Your task to perform on an android device: change notification settings in the gmail app Image 0: 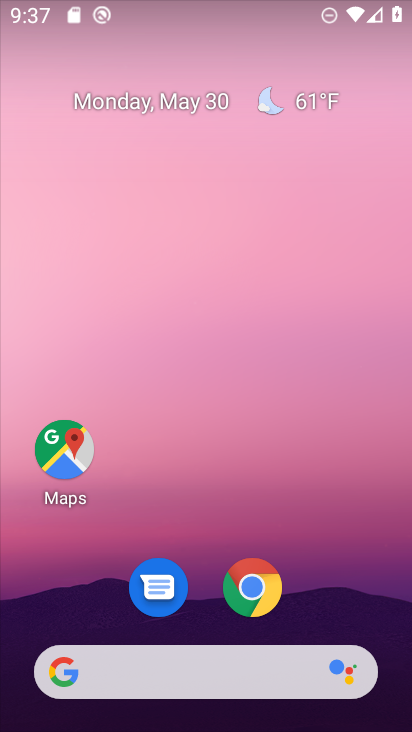
Step 0: drag from (219, 624) to (195, 14)
Your task to perform on an android device: change notification settings in the gmail app Image 1: 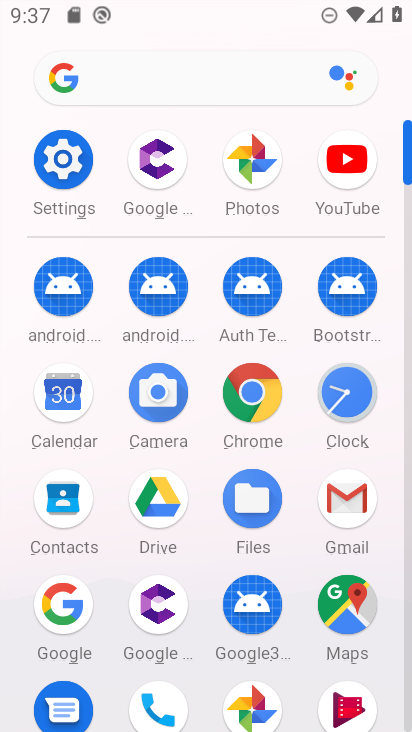
Step 1: click (367, 492)
Your task to perform on an android device: change notification settings in the gmail app Image 2: 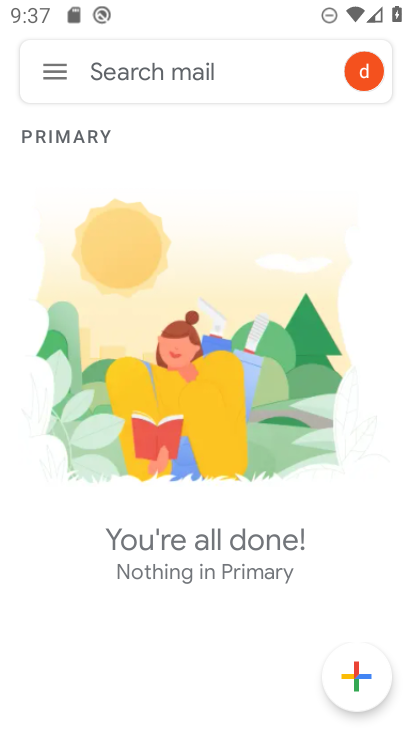
Step 2: click (40, 73)
Your task to perform on an android device: change notification settings in the gmail app Image 3: 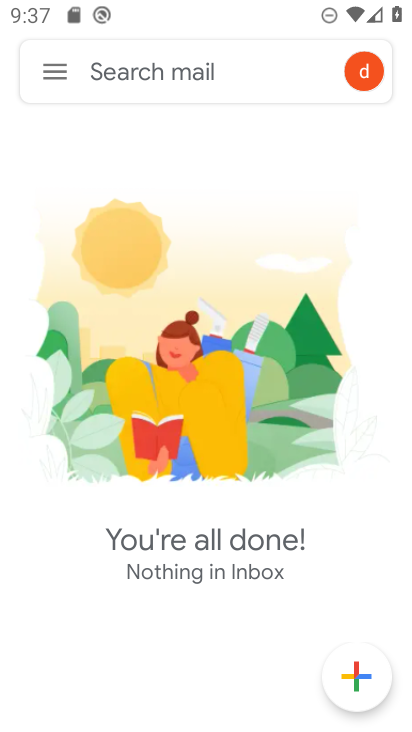
Step 3: drag from (51, 75) to (98, 390)
Your task to perform on an android device: change notification settings in the gmail app Image 4: 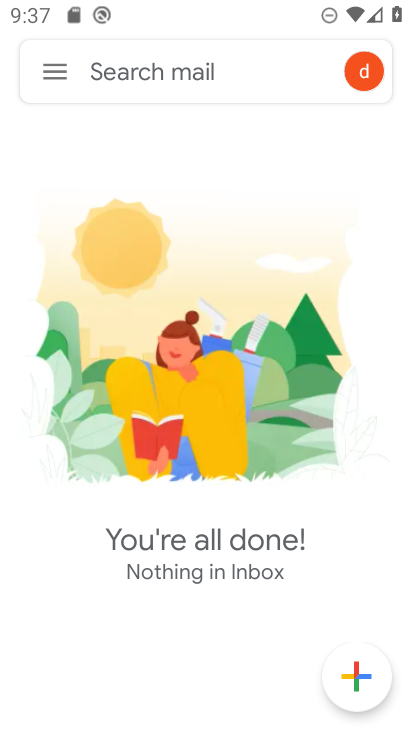
Step 4: click (61, 75)
Your task to perform on an android device: change notification settings in the gmail app Image 5: 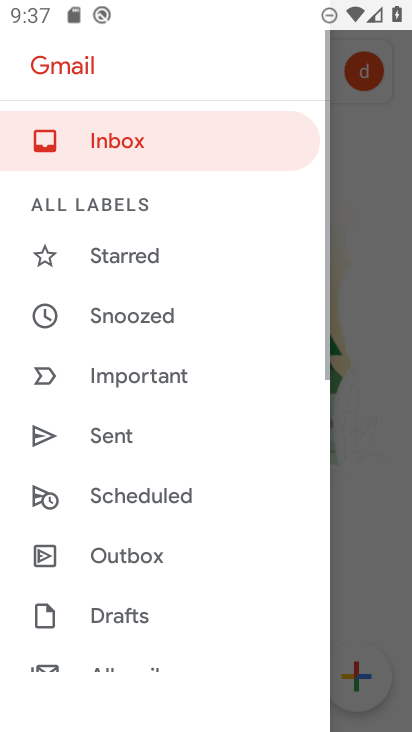
Step 5: drag from (86, 529) to (124, 27)
Your task to perform on an android device: change notification settings in the gmail app Image 6: 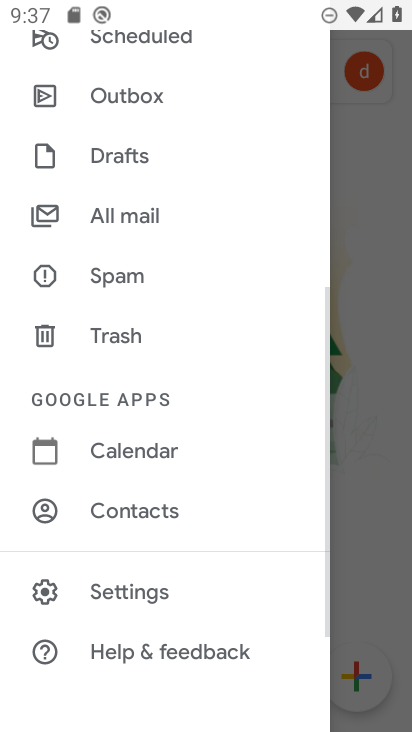
Step 6: click (138, 564)
Your task to perform on an android device: change notification settings in the gmail app Image 7: 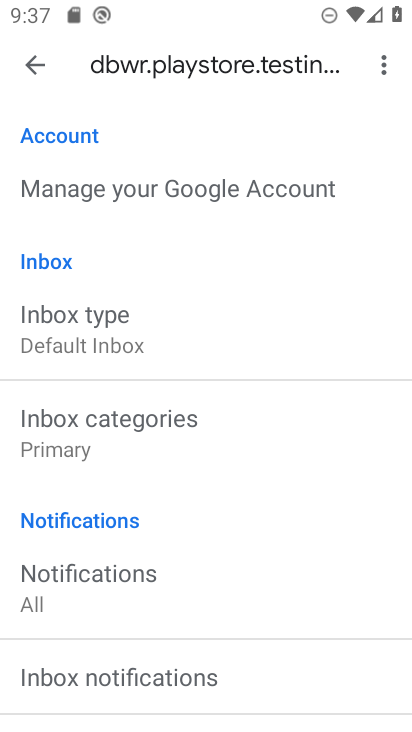
Step 7: click (15, 62)
Your task to perform on an android device: change notification settings in the gmail app Image 8: 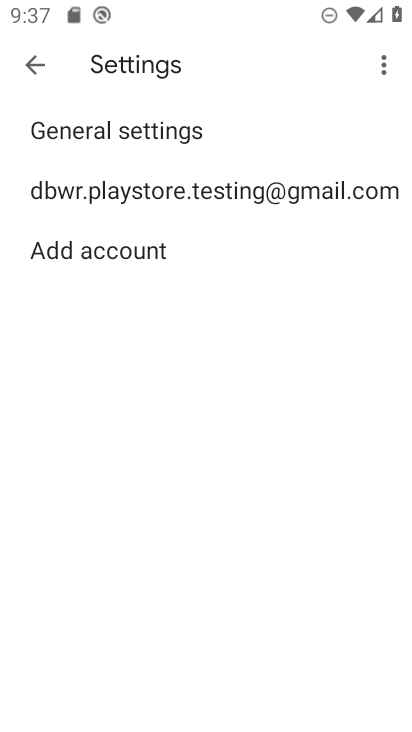
Step 8: click (70, 125)
Your task to perform on an android device: change notification settings in the gmail app Image 9: 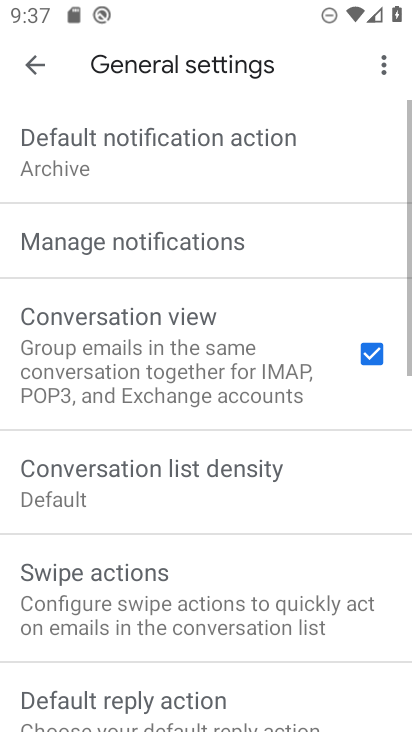
Step 9: click (142, 255)
Your task to perform on an android device: change notification settings in the gmail app Image 10: 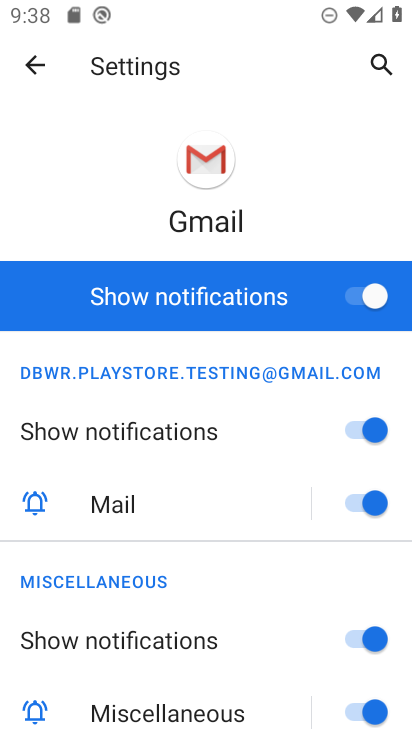
Step 10: click (334, 300)
Your task to perform on an android device: change notification settings in the gmail app Image 11: 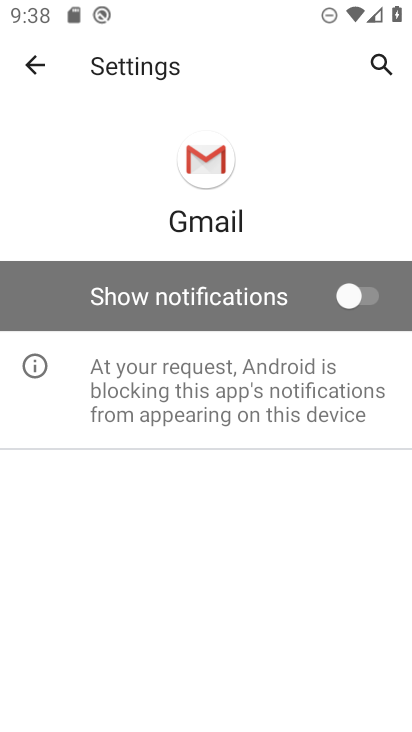
Step 11: task complete